Your task to perform on an android device: Go to sound settings Image 0: 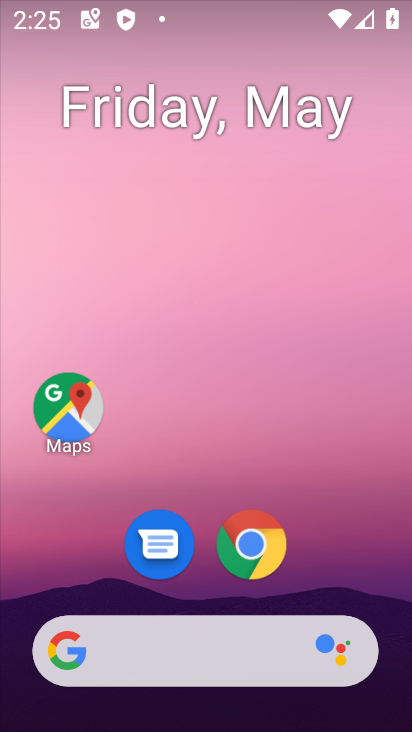
Step 0: drag from (218, 585) to (217, 258)
Your task to perform on an android device: Go to sound settings Image 1: 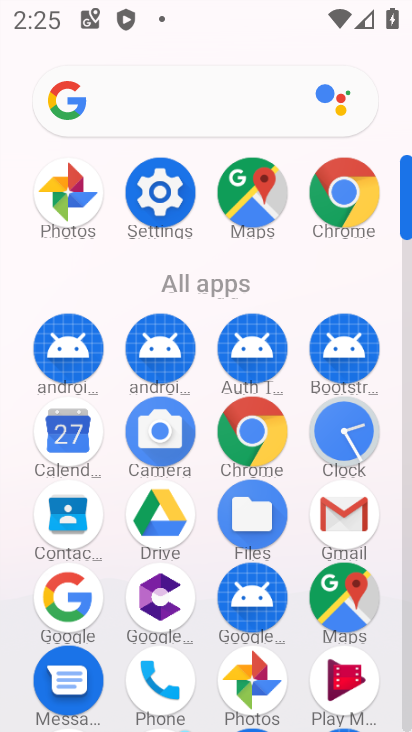
Step 1: click (168, 187)
Your task to perform on an android device: Go to sound settings Image 2: 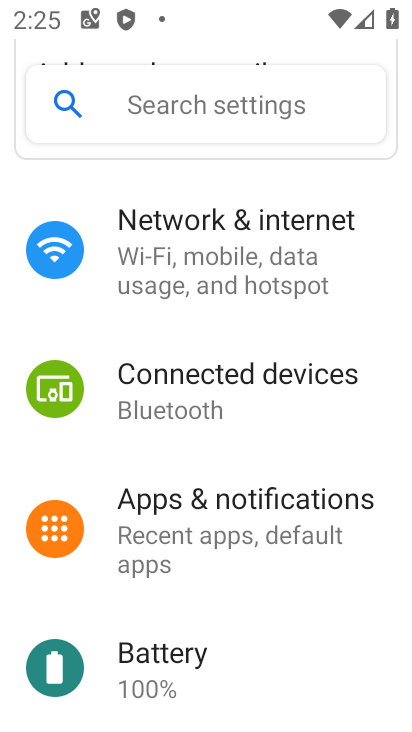
Step 2: drag from (217, 602) to (246, 236)
Your task to perform on an android device: Go to sound settings Image 3: 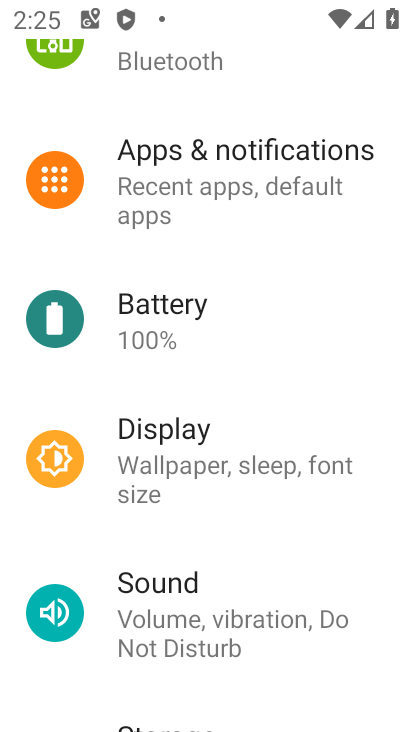
Step 3: drag from (223, 532) to (248, 349)
Your task to perform on an android device: Go to sound settings Image 4: 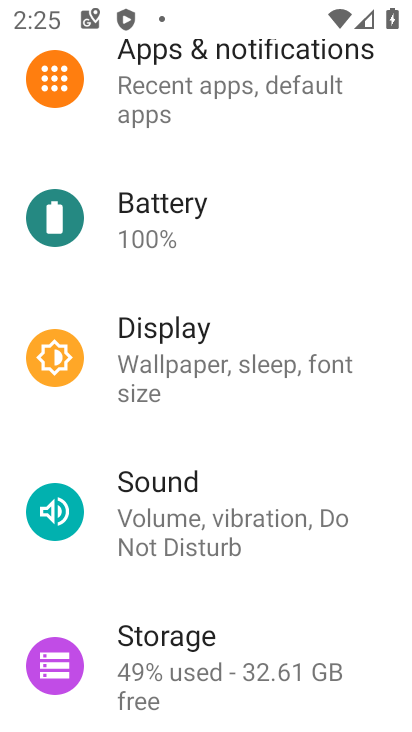
Step 4: click (221, 493)
Your task to perform on an android device: Go to sound settings Image 5: 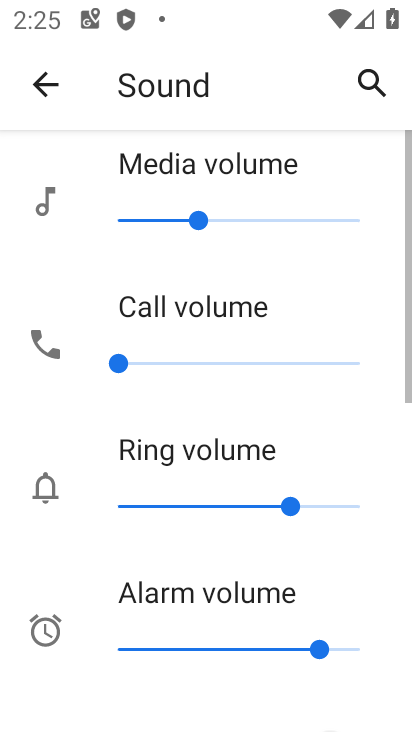
Step 5: task complete